Your task to perform on an android device: Open network settings Image 0: 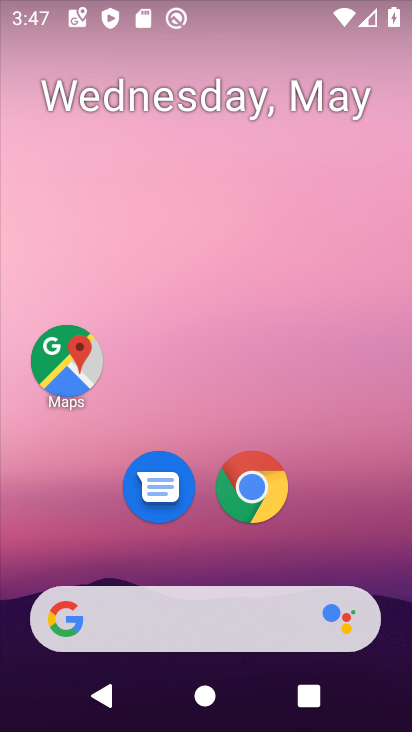
Step 0: drag from (316, 529) to (321, 33)
Your task to perform on an android device: Open network settings Image 1: 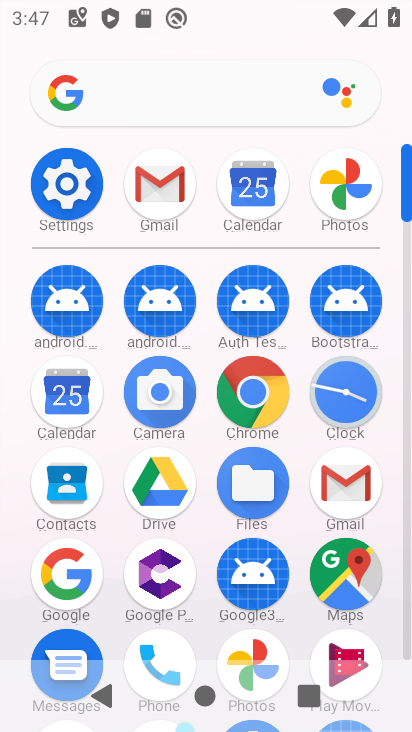
Step 1: drag from (0, 589) to (16, 245)
Your task to perform on an android device: Open network settings Image 2: 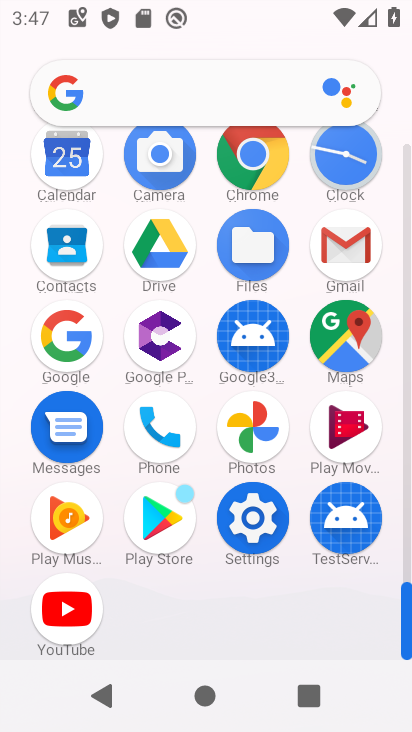
Step 2: click (253, 514)
Your task to perform on an android device: Open network settings Image 3: 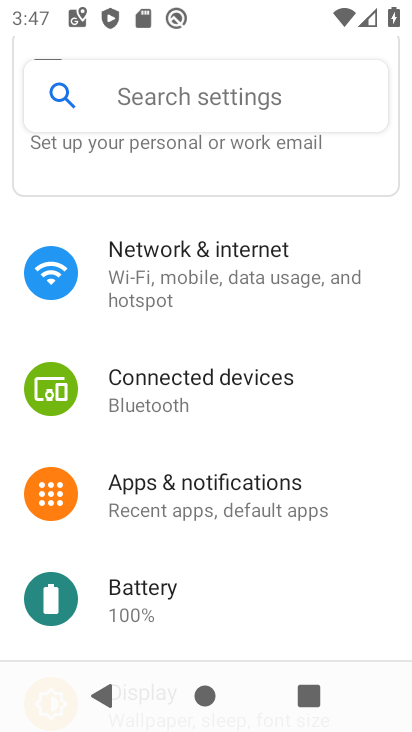
Step 3: click (272, 268)
Your task to perform on an android device: Open network settings Image 4: 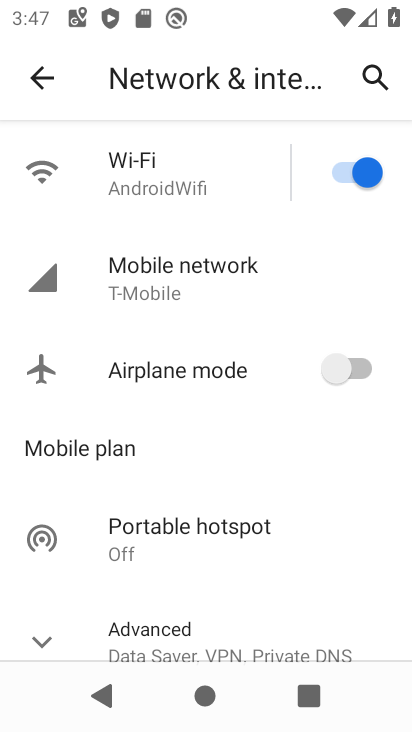
Step 4: click (239, 274)
Your task to perform on an android device: Open network settings Image 5: 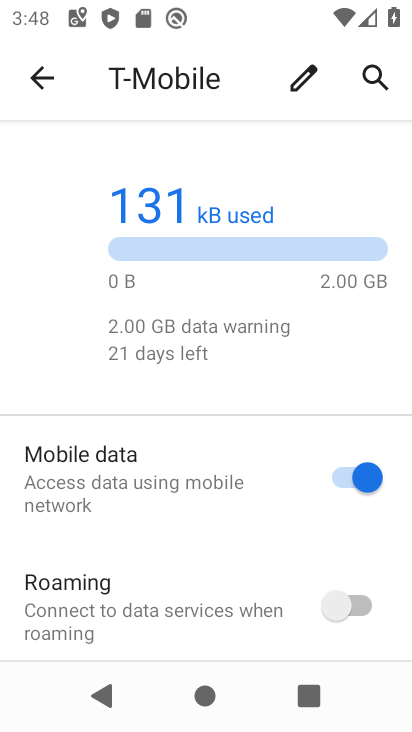
Step 5: task complete